Your task to perform on an android device: open a new tab in the chrome app Image 0: 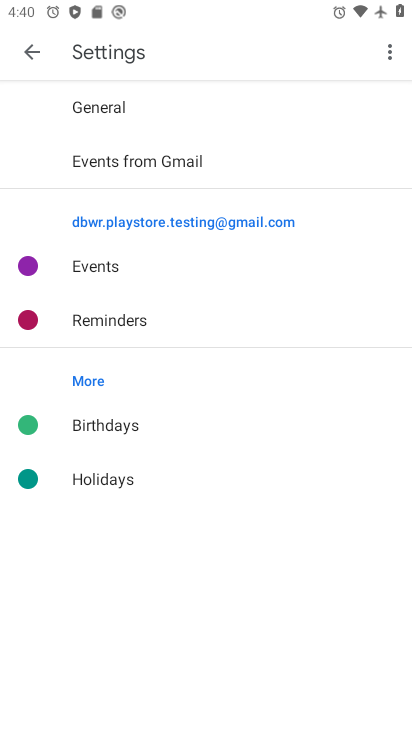
Step 0: press back button
Your task to perform on an android device: open a new tab in the chrome app Image 1: 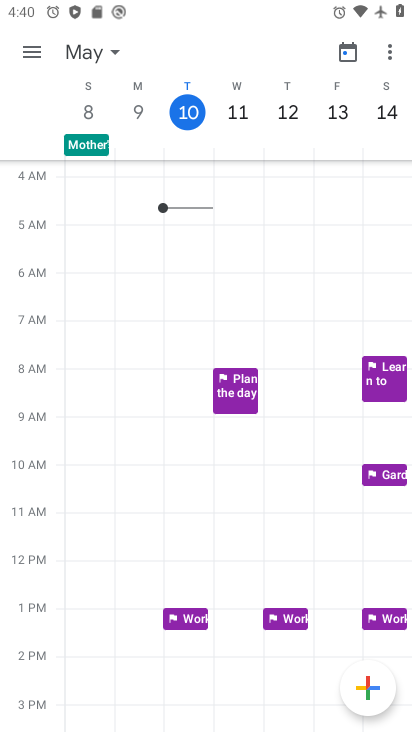
Step 1: press back button
Your task to perform on an android device: open a new tab in the chrome app Image 2: 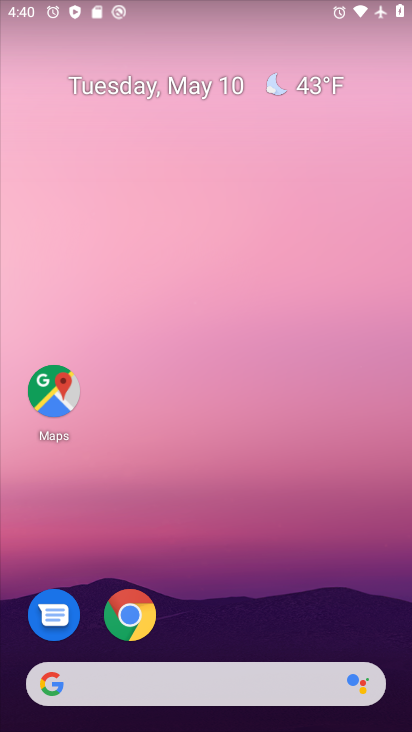
Step 2: click (129, 614)
Your task to perform on an android device: open a new tab in the chrome app Image 3: 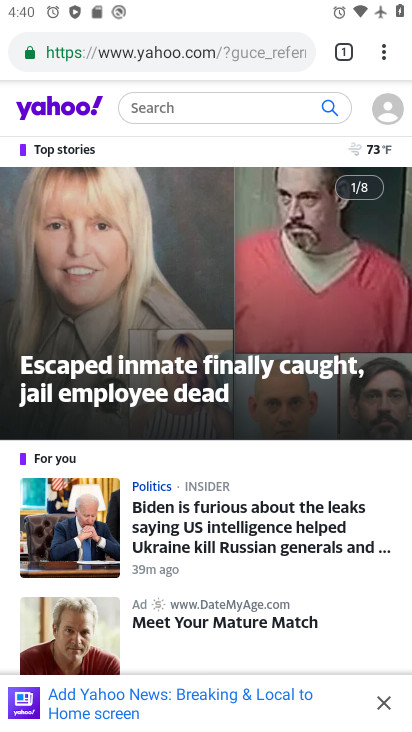
Step 3: task complete